Your task to perform on an android device: What is the recent news? Image 0: 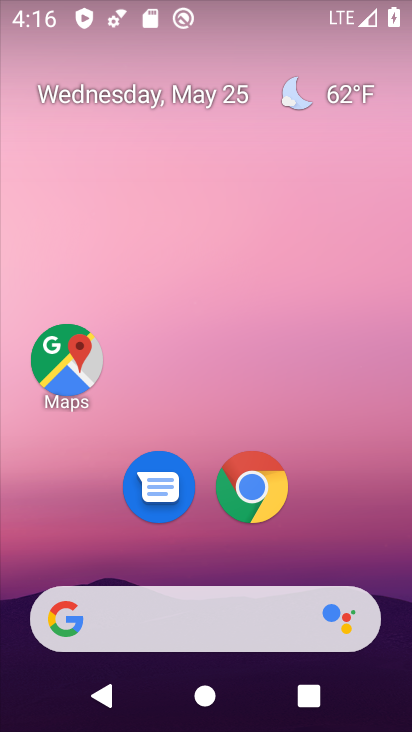
Step 0: drag from (1, 220) to (411, 322)
Your task to perform on an android device: What is the recent news? Image 1: 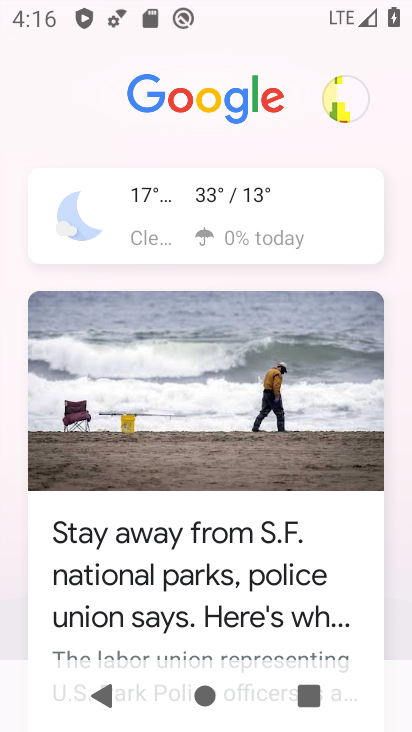
Step 1: task complete